Your task to perform on an android device: Open settings on Google Maps Image 0: 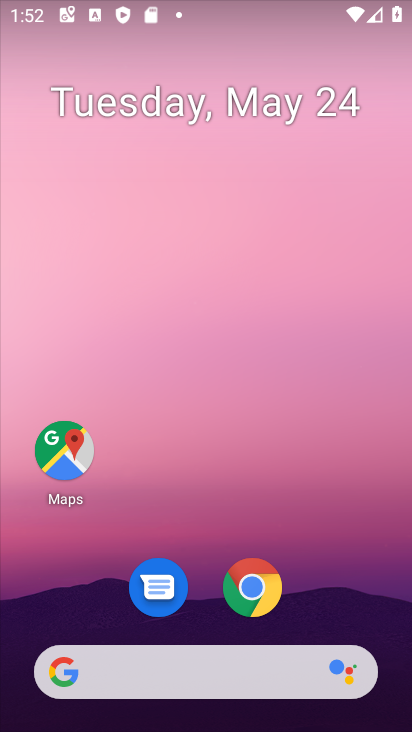
Step 0: click (220, 723)
Your task to perform on an android device: Open settings on Google Maps Image 1: 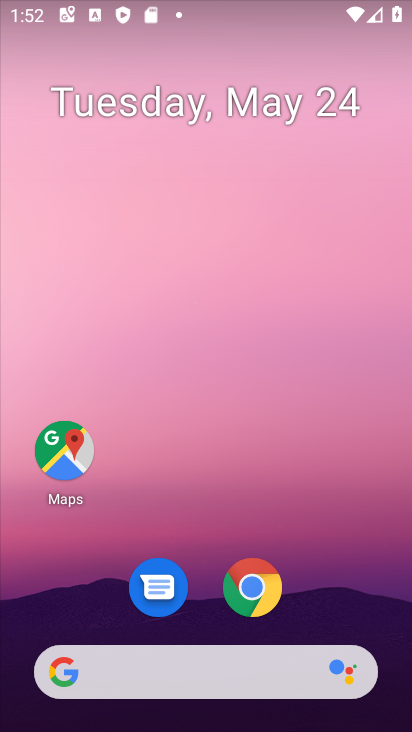
Step 1: click (82, 454)
Your task to perform on an android device: Open settings on Google Maps Image 2: 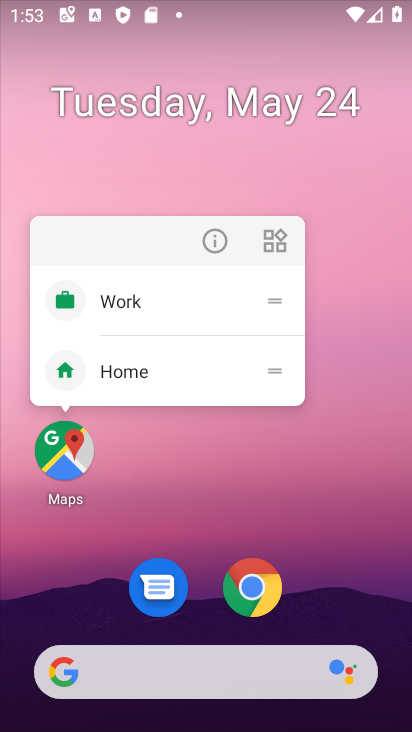
Step 2: click (82, 454)
Your task to perform on an android device: Open settings on Google Maps Image 3: 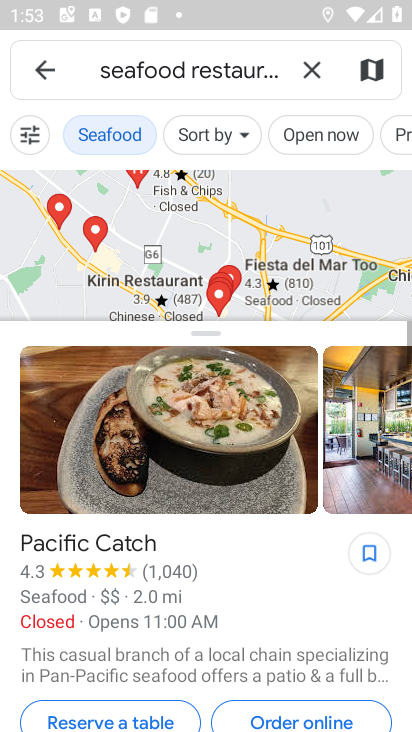
Step 3: click (322, 67)
Your task to perform on an android device: Open settings on Google Maps Image 4: 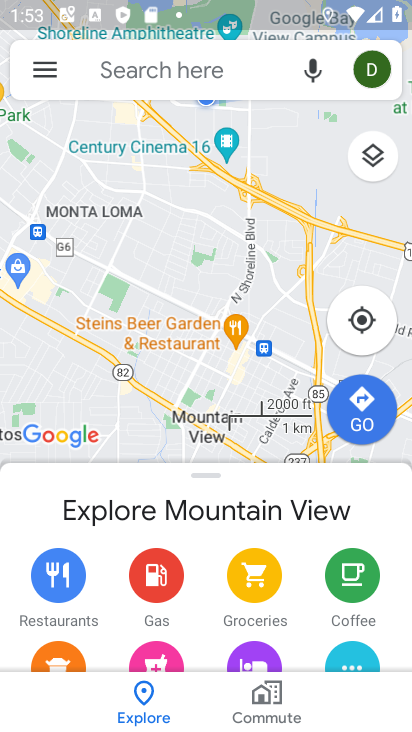
Step 4: click (40, 68)
Your task to perform on an android device: Open settings on Google Maps Image 5: 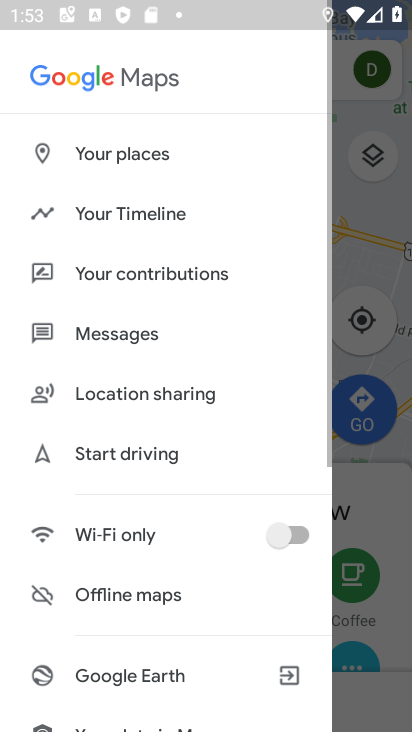
Step 5: drag from (190, 671) to (264, 230)
Your task to perform on an android device: Open settings on Google Maps Image 6: 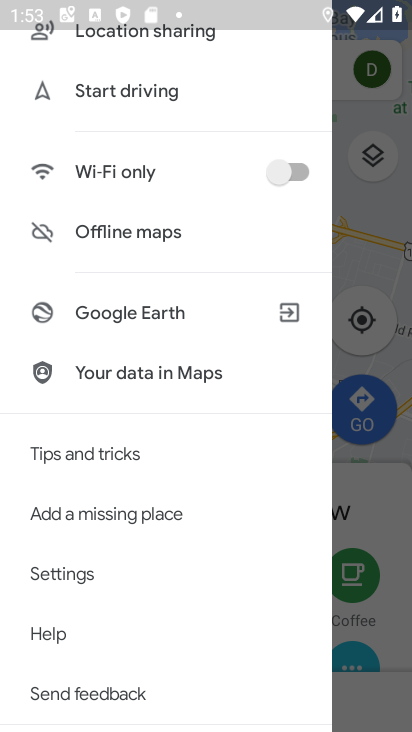
Step 6: click (105, 572)
Your task to perform on an android device: Open settings on Google Maps Image 7: 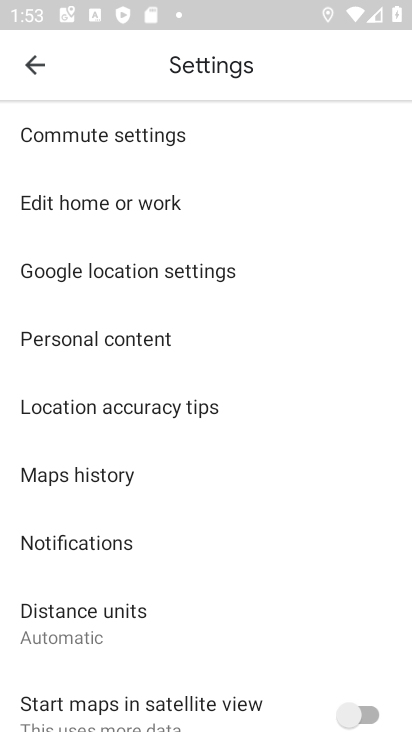
Step 7: task complete